Your task to perform on an android device: Open Amazon Image 0: 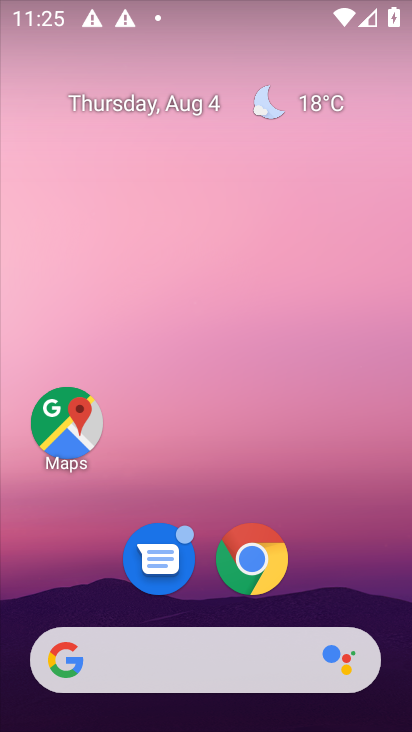
Step 0: click (406, 385)
Your task to perform on an android device: Open Amazon Image 1: 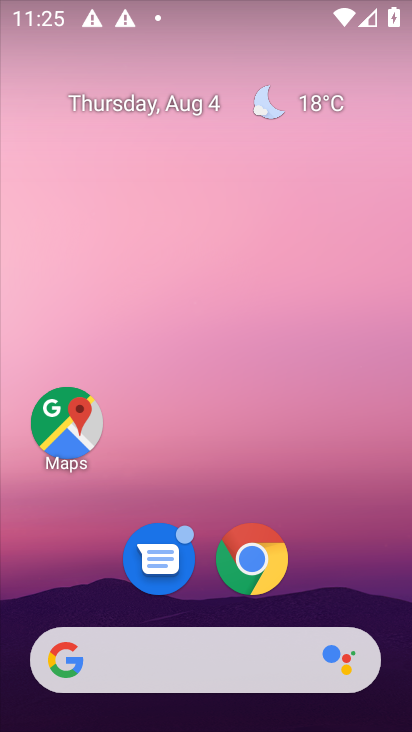
Step 1: click (129, 661)
Your task to perform on an android device: Open Amazon Image 2: 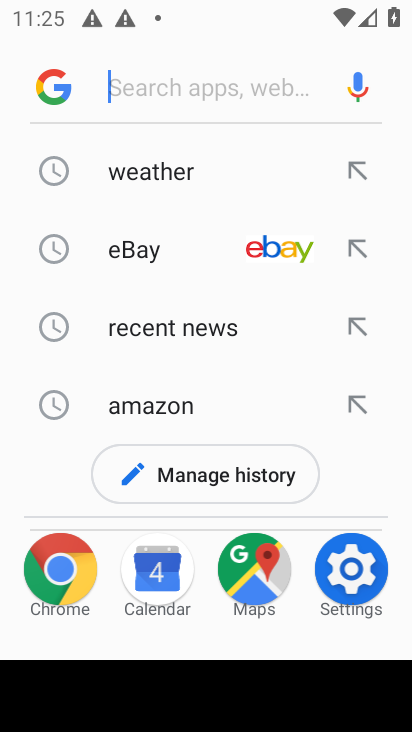
Step 2: click (138, 415)
Your task to perform on an android device: Open Amazon Image 3: 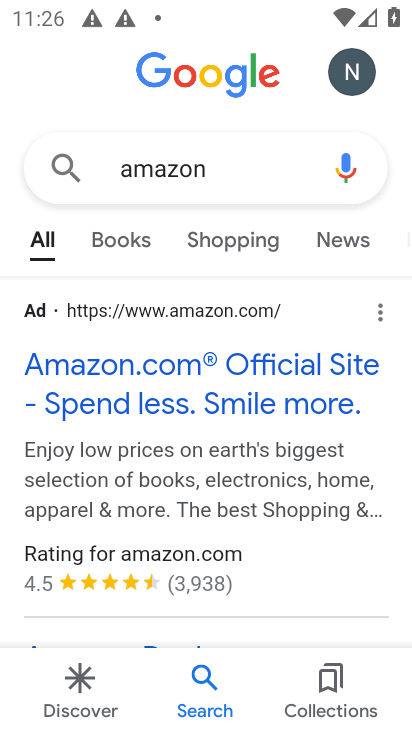
Step 3: task complete